Your task to perform on an android device: What's on my calendar today? Image 0: 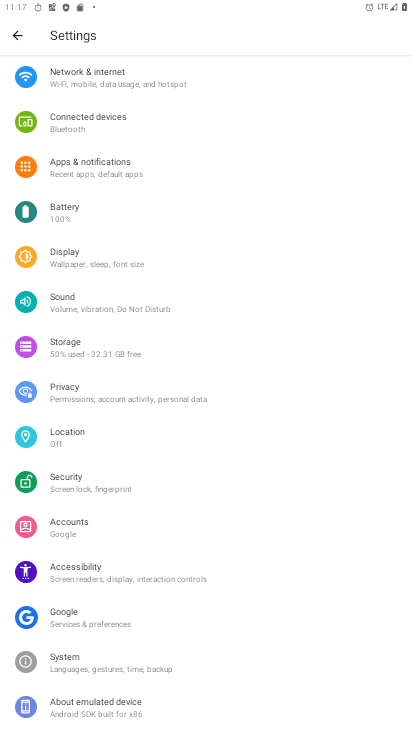
Step 0: press home button
Your task to perform on an android device: What's on my calendar today? Image 1: 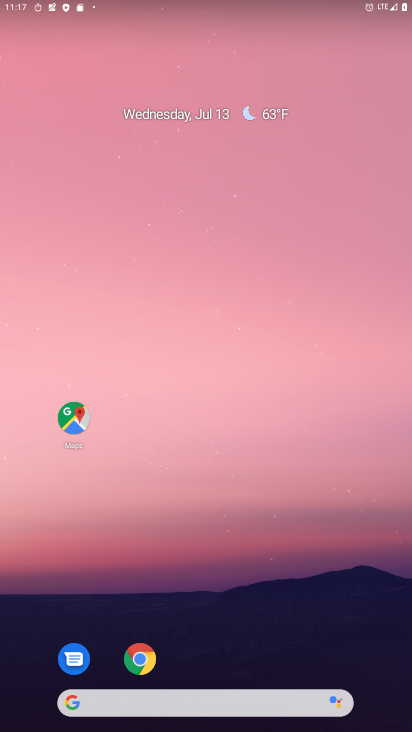
Step 1: drag from (255, 581) to (203, 140)
Your task to perform on an android device: What's on my calendar today? Image 2: 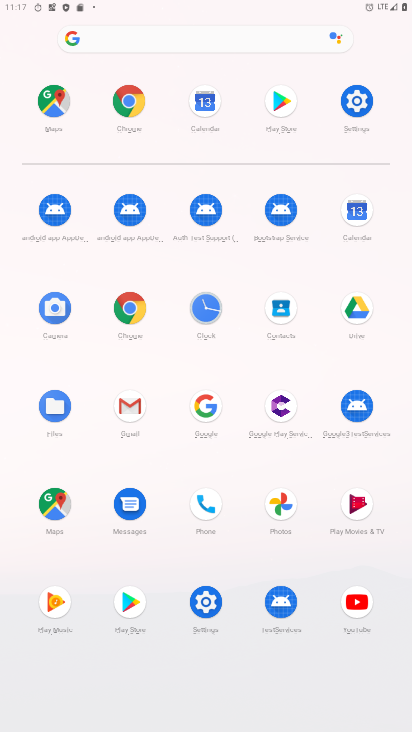
Step 2: click (369, 212)
Your task to perform on an android device: What's on my calendar today? Image 3: 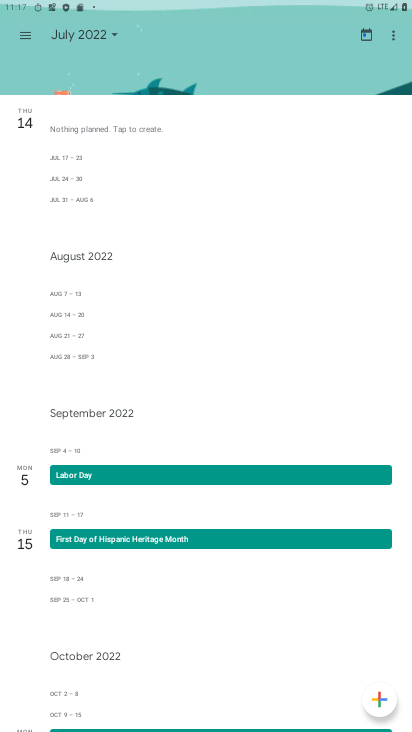
Step 3: drag from (78, 137) to (80, 336)
Your task to perform on an android device: What's on my calendar today? Image 4: 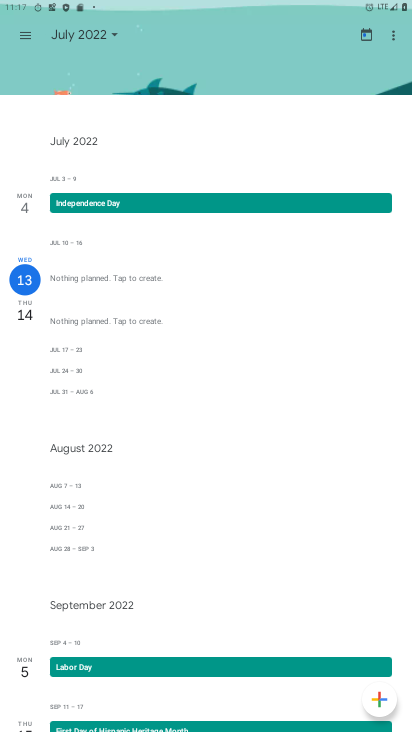
Step 4: click (30, 273)
Your task to perform on an android device: What's on my calendar today? Image 5: 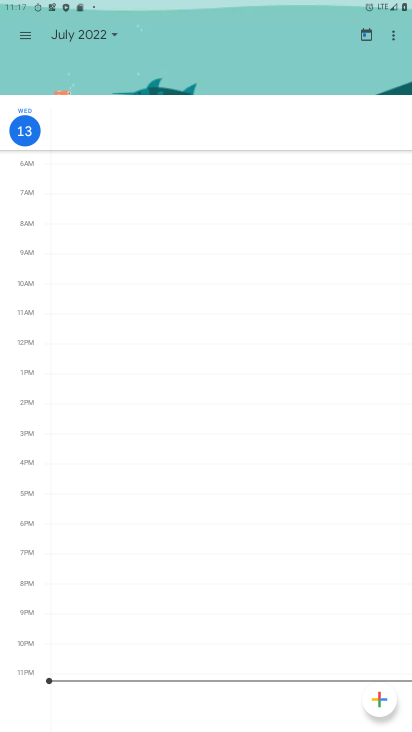
Step 5: task complete